Your task to perform on an android device: Go to notification settings Image 0: 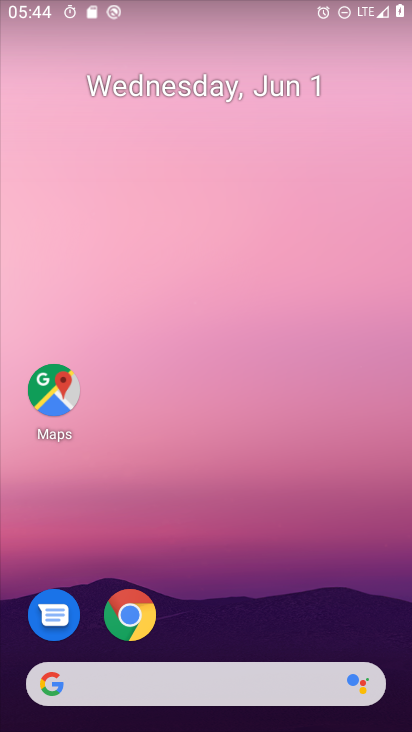
Step 0: drag from (296, 663) to (311, 65)
Your task to perform on an android device: Go to notification settings Image 1: 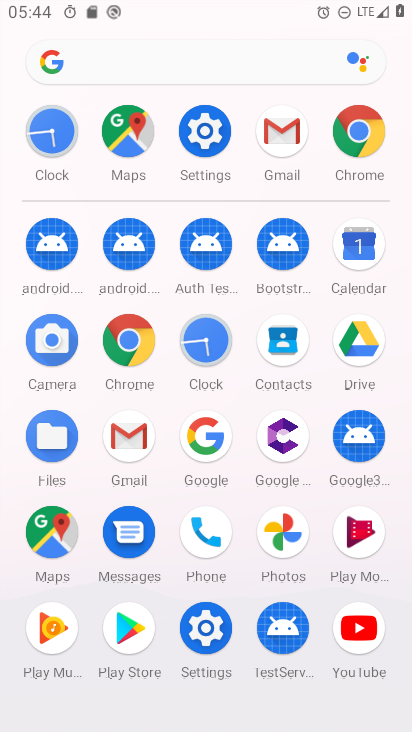
Step 1: click (203, 137)
Your task to perform on an android device: Go to notification settings Image 2: 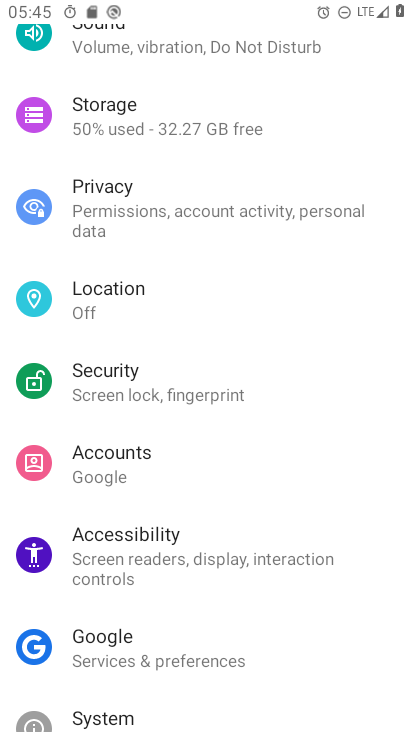
Step 2: drag from (220, 193) to (258, 713)
Your task to perform on an android device: Go to notification settings Image 3: 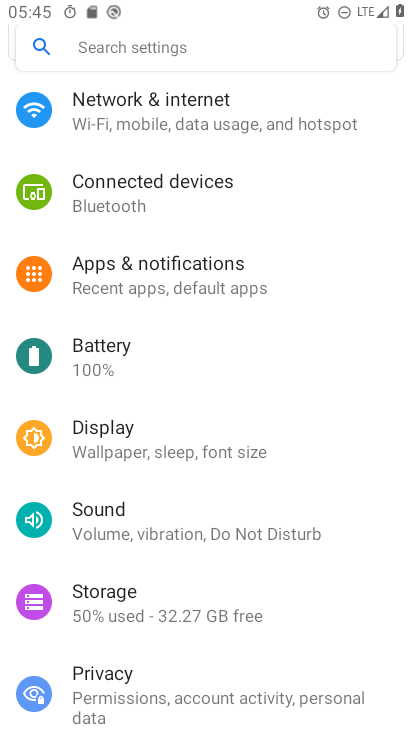
Step 3: click (191, 276)
Your task to perform on an android device: Go to notification settings Image 4: 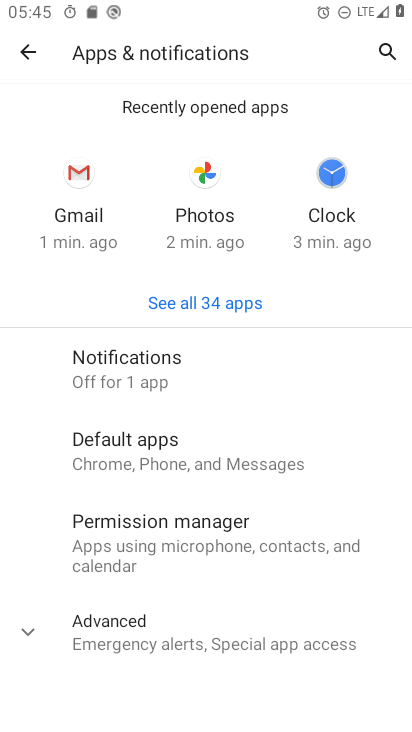
Step 4: task complete